Your task to perform on an android device: Open privacy settings Image 0: 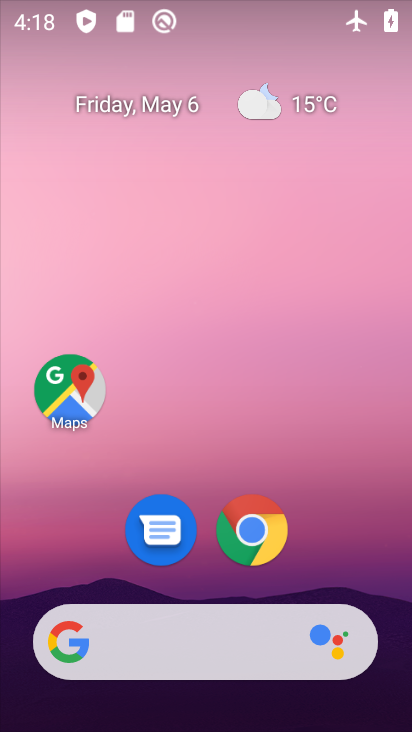
Step 0: drag from (338, 557) to (173, 4)
Your task to perform on an android device: Open privacy settings Image 1: 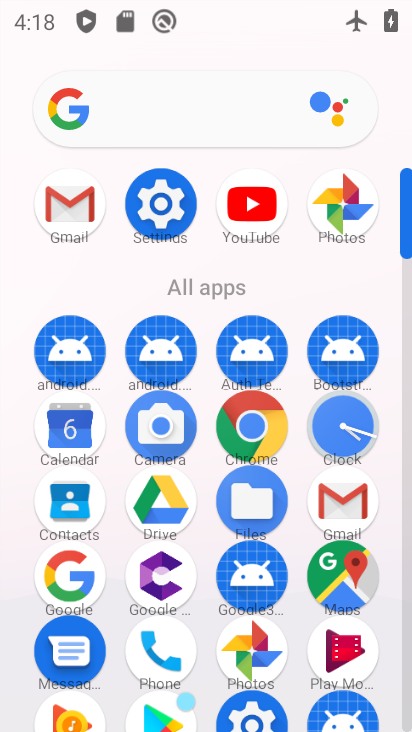
Step 1: click (150, 207)
Your task to perform on an android device: Open privacy settings Image 2: 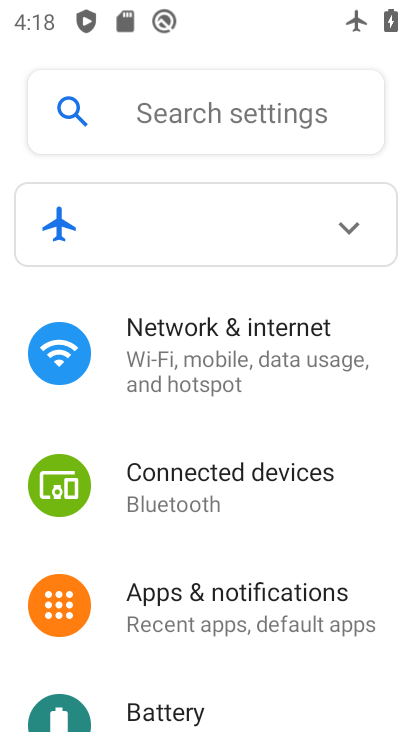
Step 2: drag from (269, 567) to (210, 227)
Your task to perform on an android device: Open privacy settings Image 3: 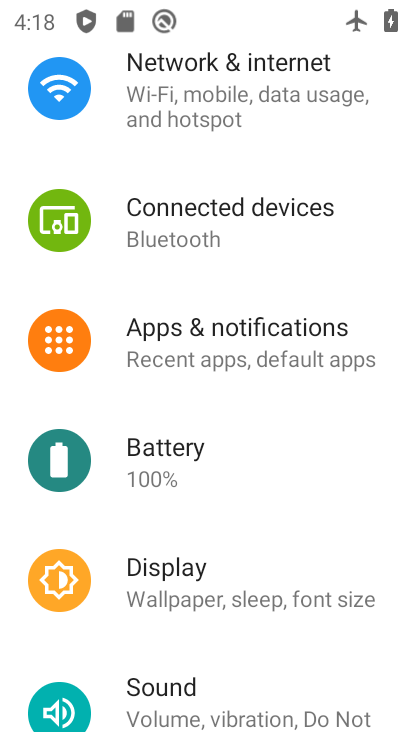
Step 3: drag from (224, 604) to (191, 250)
Your task to perform on an android device: Open privacy settings Image 4: 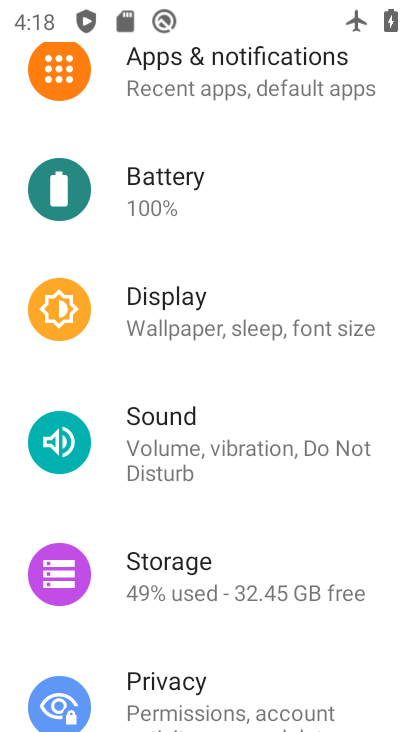
Step 4: click (168, 693)
Your task to perform on an android device: Open privacy settings Image 5: 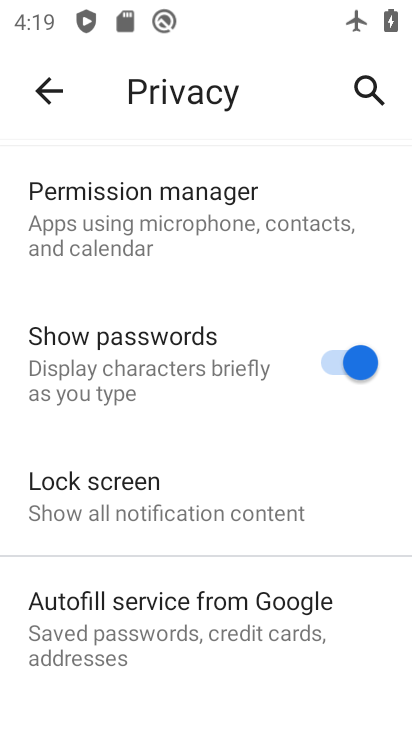
Step 5: task complete